Your task to perform on an android device: Open calendar and show me the fourth week of next month Image 0: 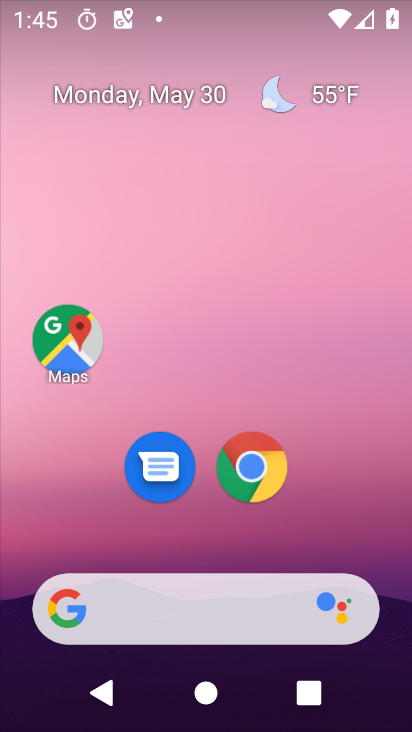
Step 0: drag from (392, 678) to (372, 77)
Your task to perform on an android device: Open calendar and show me the fourth week of next month Image 1: 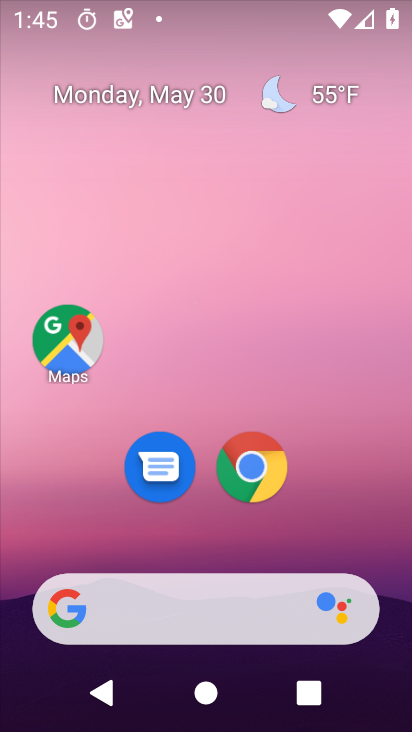
Step 1: drag from (382, 695) to (346, 105)
Your task to perform on an android device: Open calendar and show me the fourth week of next month Image 2: 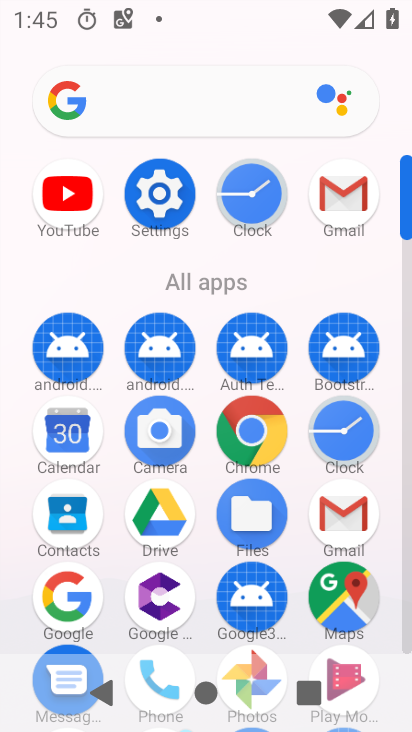
Step 2: click (68, 429)
Your task to perform on an android device: Open calendar and show me the fourth week of next month Image 3: 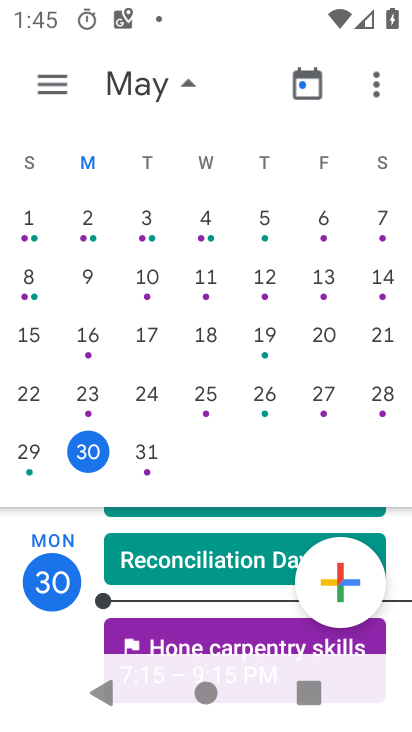
Step 3: click (179, 75)
Your task to perform on an android device: Open calendar and show me the fourth week of next month Image 4: 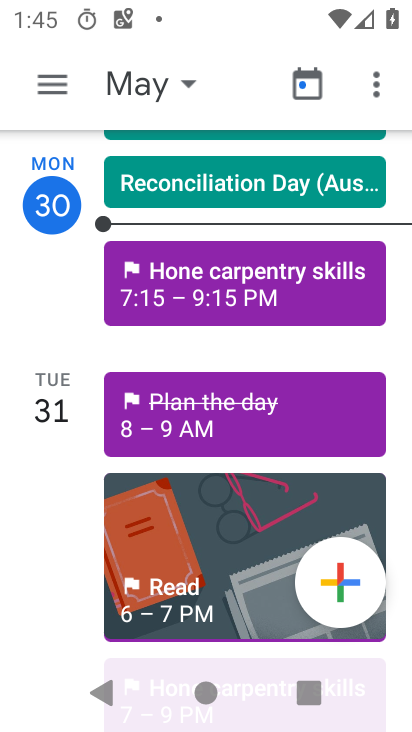
Step 4: click (180, 83)
Your task to perform on an android device: Open calendar and show me the fourth week of next month Image 5: 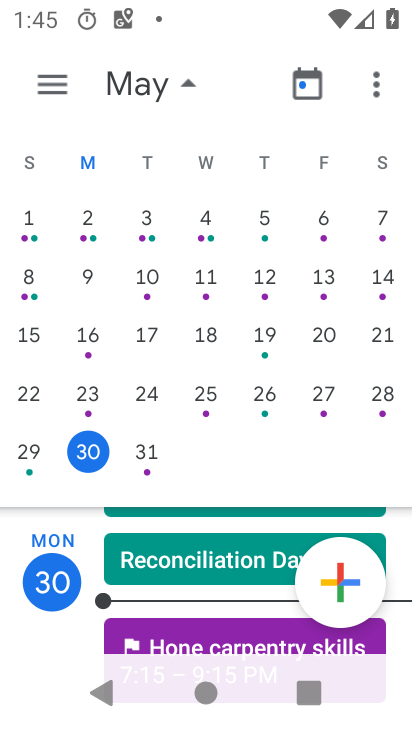
Step 5: drag from (399, 201) to (89, 206)
Your task to perform on an android device: Open calendar and show me the fourth week of next month Image 6: 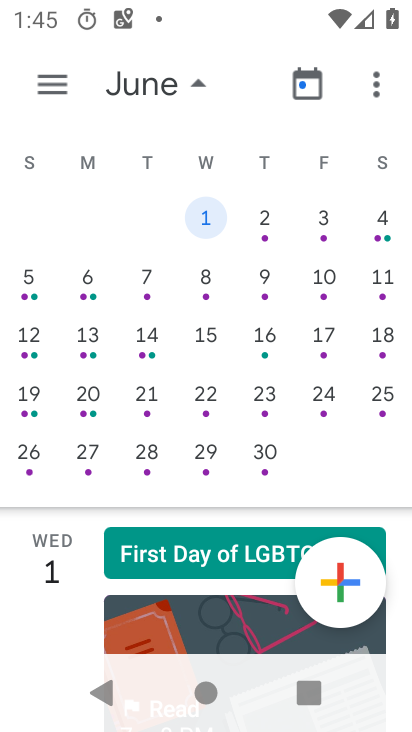
Step 6: click (205, 392)
Your task to perform on an android device: Open calendar and show me the fourth week of next month Image 7: 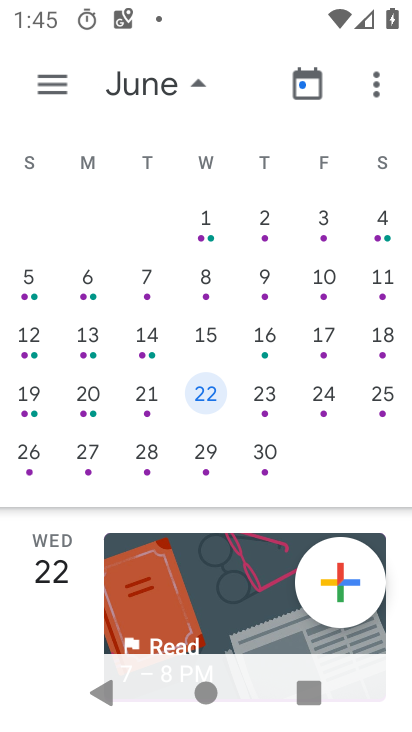
Step 7: click (62, 73)
Your task to perform on an android device: Open calendar and show me the fourth week of next month Image 8: 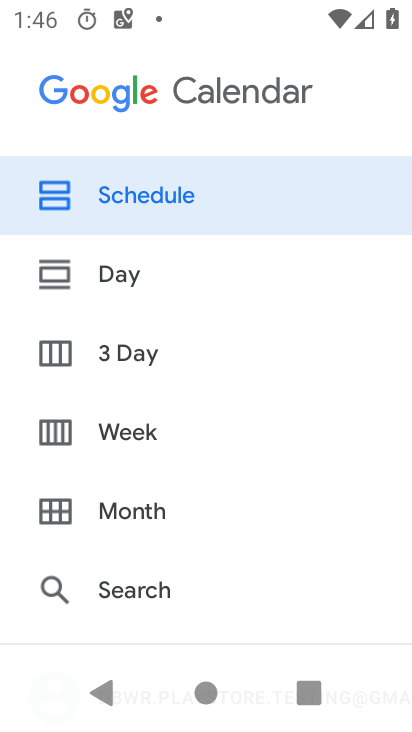
Step 8: click (107, 435)
Your task to perform on an android device: Open calendar and show me the fourth week of next month Image 9: 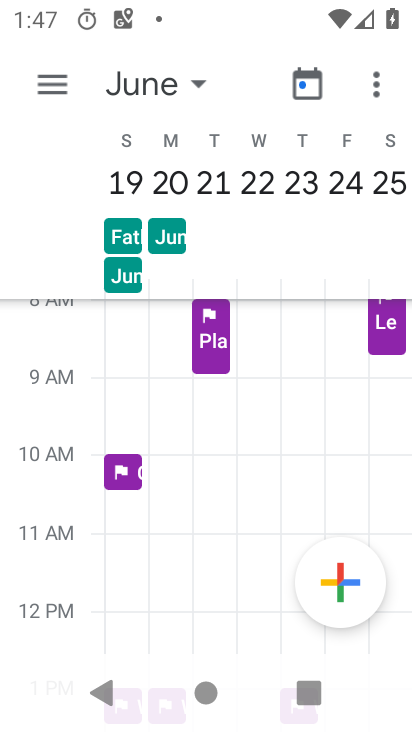
Step 9: task complete